Your task to perform on an android device: Go to battery settings Image 0: 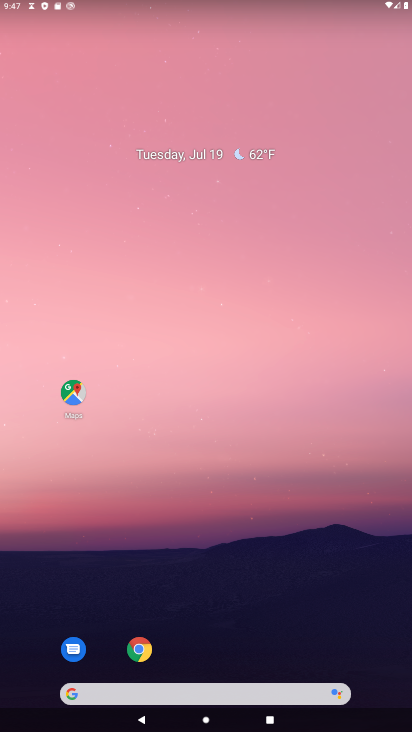
Step 0: drag from (160, 674) to (77, 181)
Your task to perform on an android device: Go to battery settings Image 1: 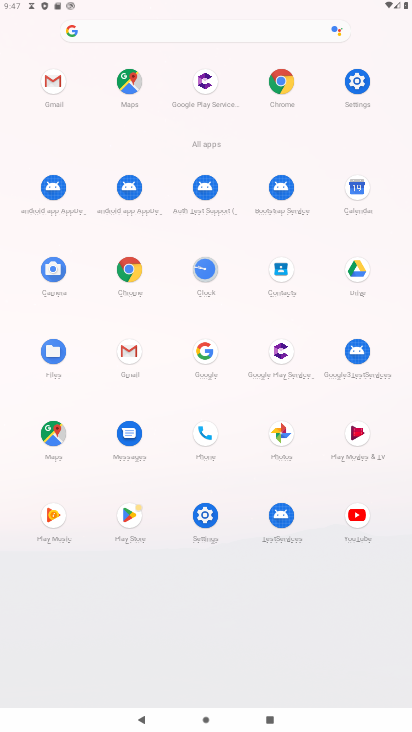
Step 1: click (349, 77)
Your task to perform on an android device: Go to battery settings Image 2: 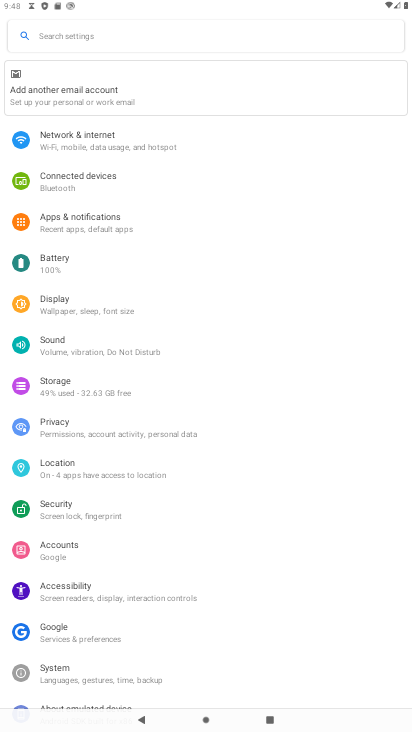
Step 2: click (112, 263)
Your task to perform on an android device: Go to battery settings Image 3: 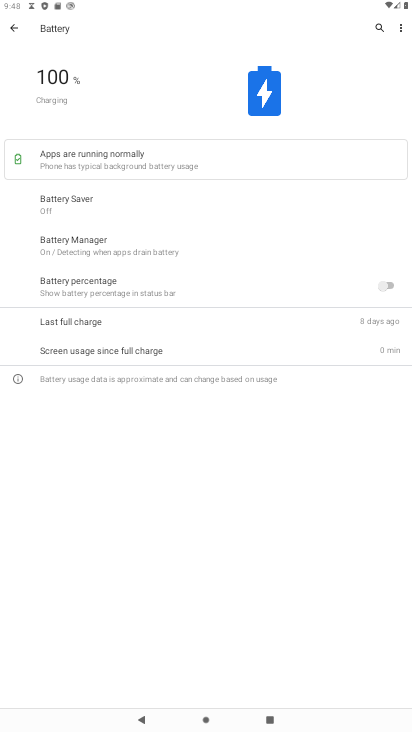
Step 3: task complete